Your task to perform on an android device: remove spam from my inbox in the gmail app Image 0: 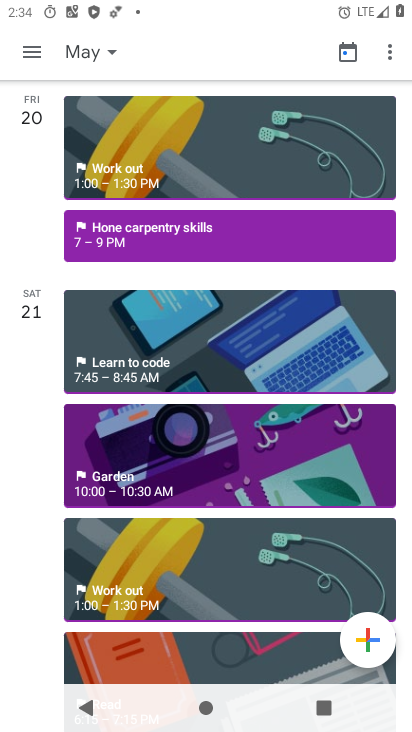
Step 0: press home button
Your task to perform on an android device: remove spam from my inbox in the gmail app Image 1: 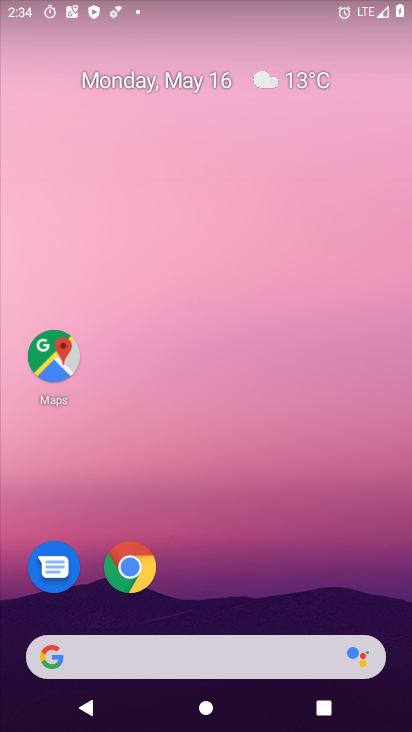
Step 1: drag from (274, 589) to (293, 217)
Your task to perform on an android device: remove spam from my inbox in the gmail app Image 2: 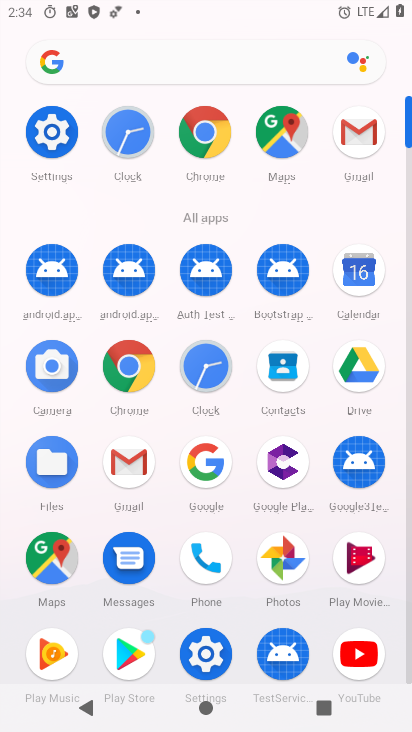
Step 2: click (347, 135)
Your task to perform on an android device: remove spam from my inbox in the gmail app Image 3: 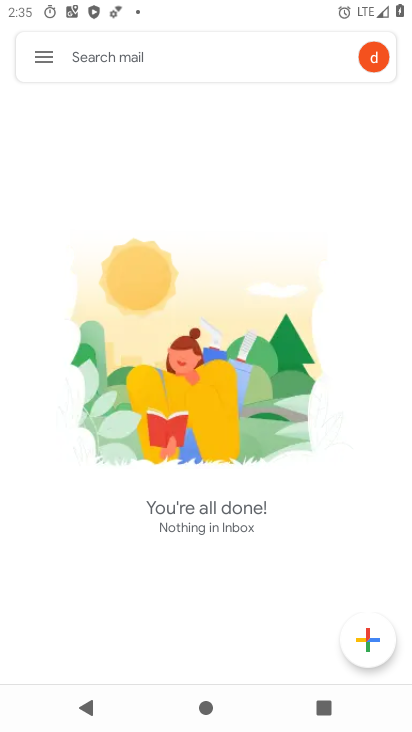
Step 3: click (32, 59)
Your task to perform on an android device: remove spam from my inbox in the gmail app Image 4: 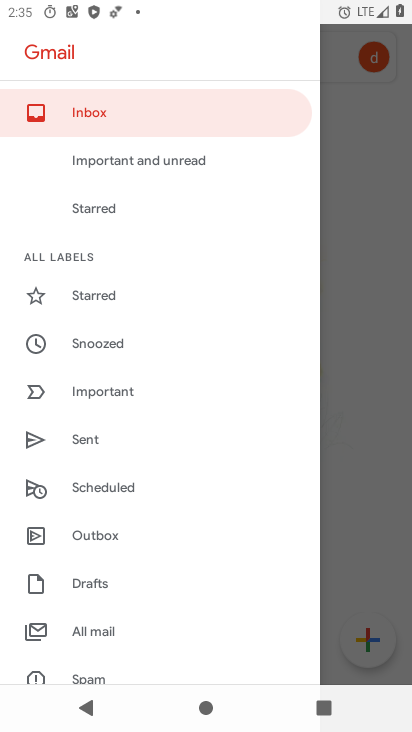
Step 4: drag from (156, 617) to (198, 329)
Your task to perform on an android device: remove spam from my inbox in the gmail app Image 5: 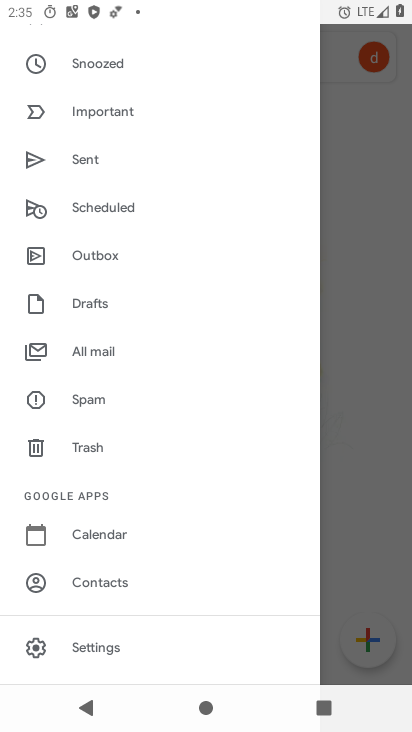
Step 5: click (90, 394)
Your task to perform on an android device: remove spam from my inbox in the gmail app Image 6: 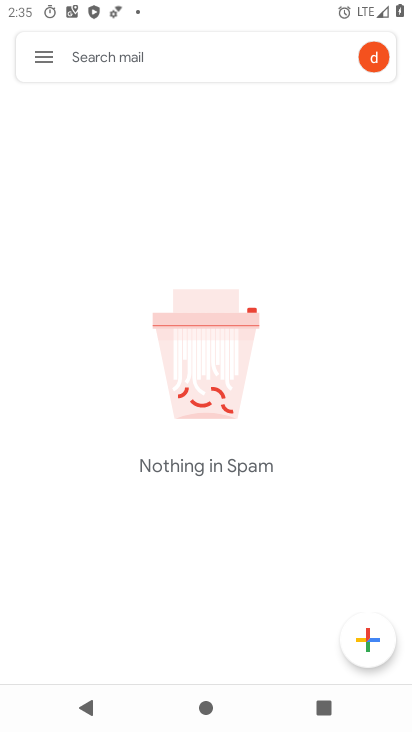
Step 6: task complete